Your task to perform on an android device: turn notification dots off Image 0: 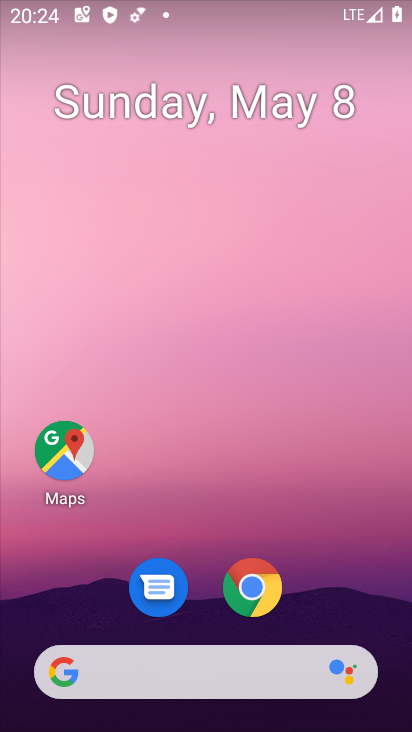
Step 0: drag from (198, 524) to (221, 55)
Your task to perform on an android device: turn notification dots off Image 1: 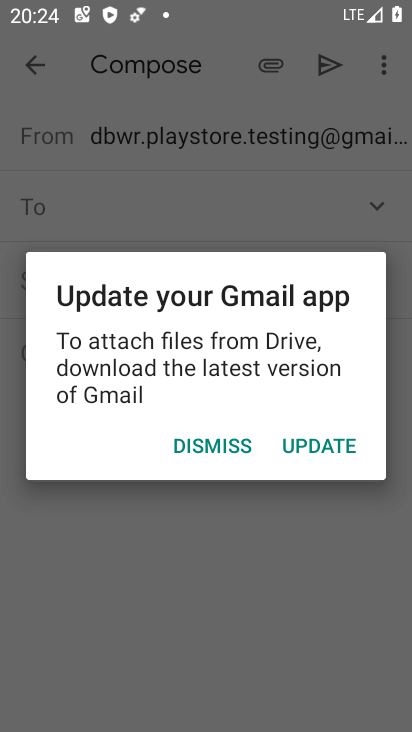
Step 1: press home button
Your task to perform on an android device: turn notification dots off Image 2: 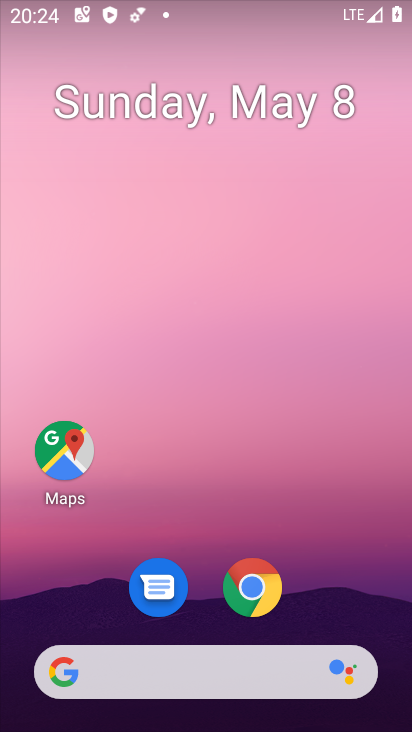
Step 2: drag from (188, 527) to (193, 17)
Your task to perform on an android device: turn notification dots off Image 3: 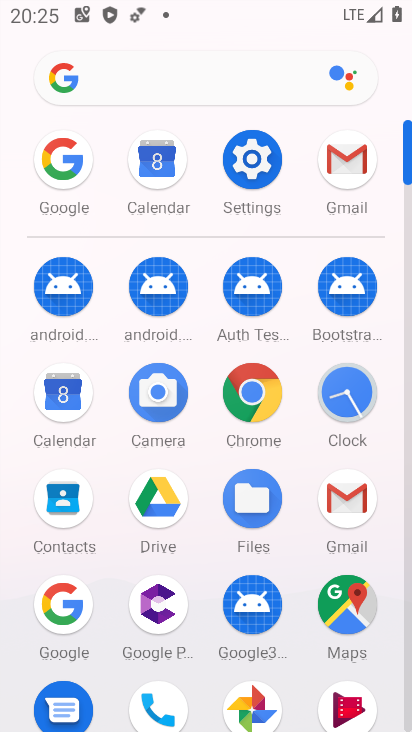
Step 3: click (253, 161)
Your task to perform on an android device: turn notification dots off Image 4: 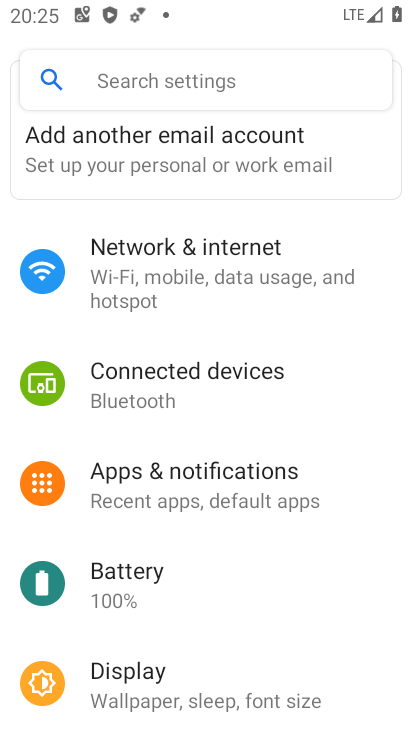
Step 4: click (203, 470)
Your task to perform on an android device: turn notification dots off Image 5: 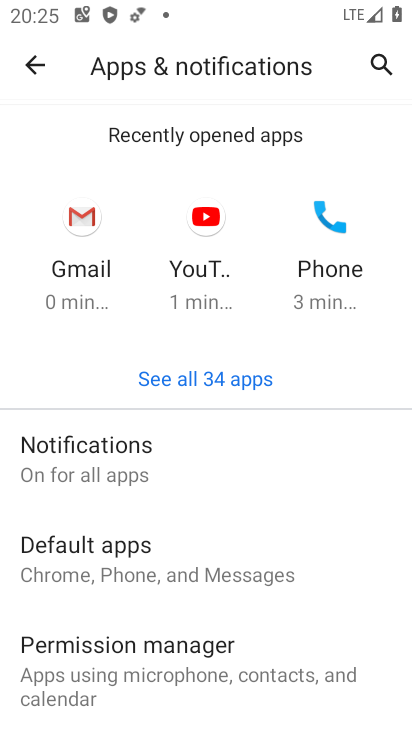
Step 5: drag from (177, 529) to (192, 446)
Your task to perform on an android device: turn notification dots off Image 6: 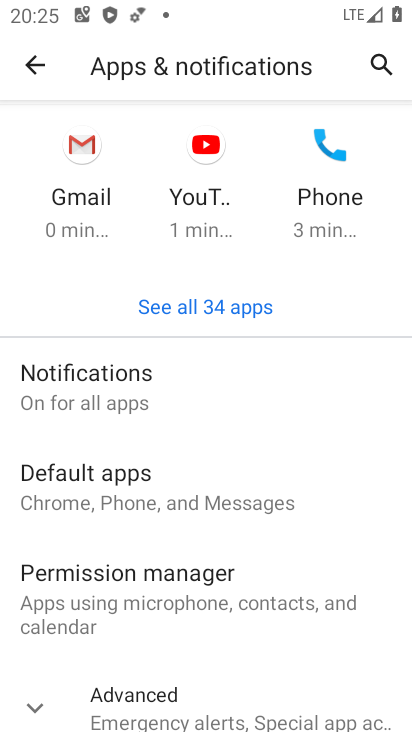
Step 6: click (124, 376)
Your task to perform on an android device: turn notification dots off Image 7: 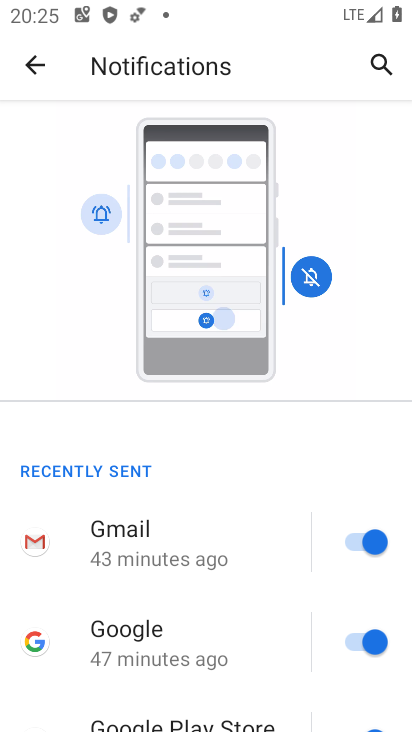
Step 7: drag from (202, 504) to (226, 361)
Your task to perform on an android device: turn notification dots off Image 8: 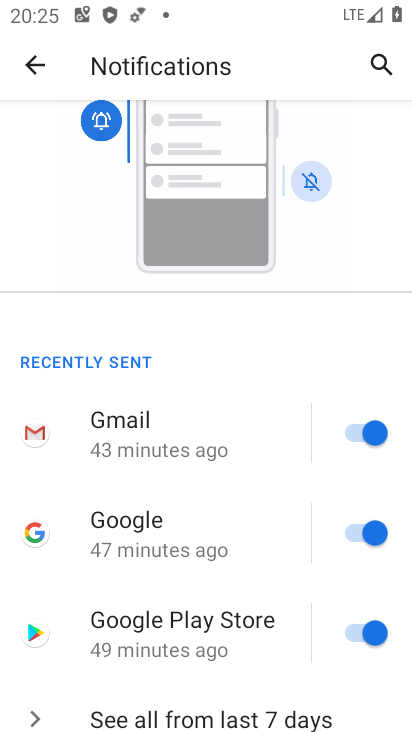
Step 8: drag from (179, 505) to (268, 370)
Your task to perform on an android device: turn notification dots off Image 9: 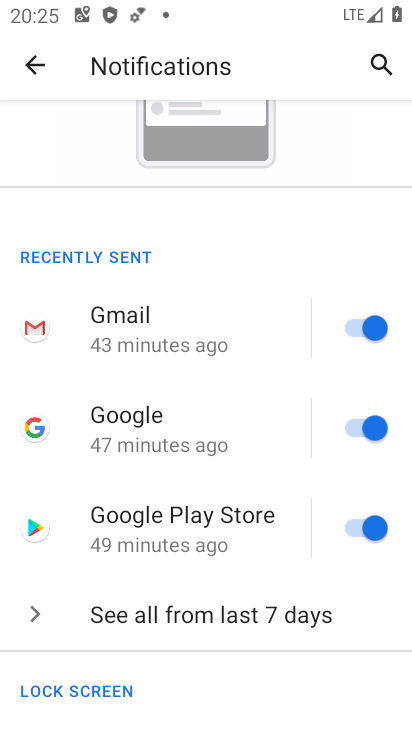
Step 9: drag from (158, 578) to (280, 415)
Your task to perform on an android device: turn notification dots off Image 10: 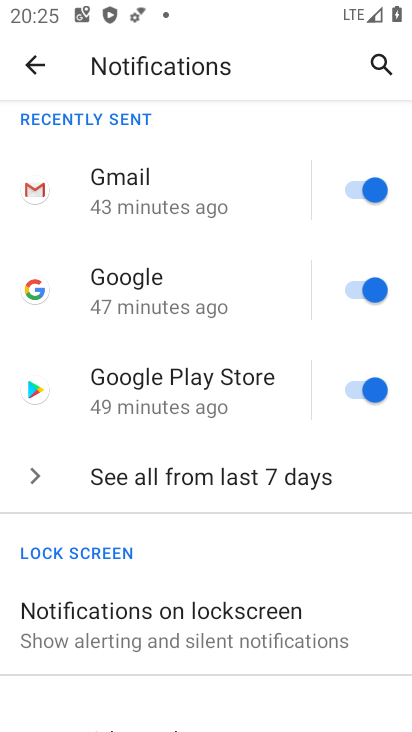
Step 10: drag from (189, 570) to (275, 415)
Your task to perform on an android device: turn notification dots off Image 11: 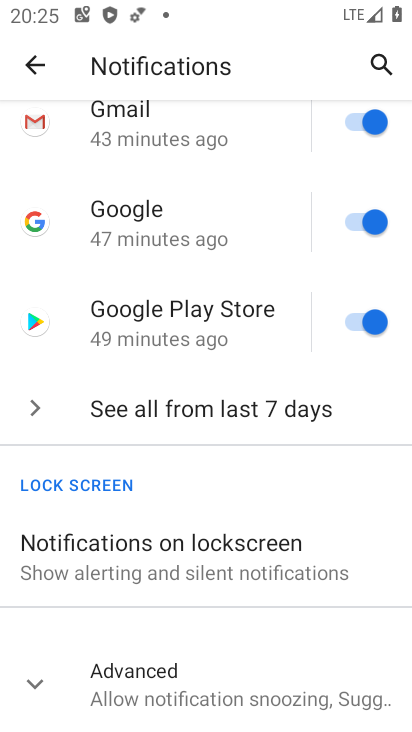
Step 11: click (123, 663)
Your task to perform on an android device: turn notification dots off Image 12: 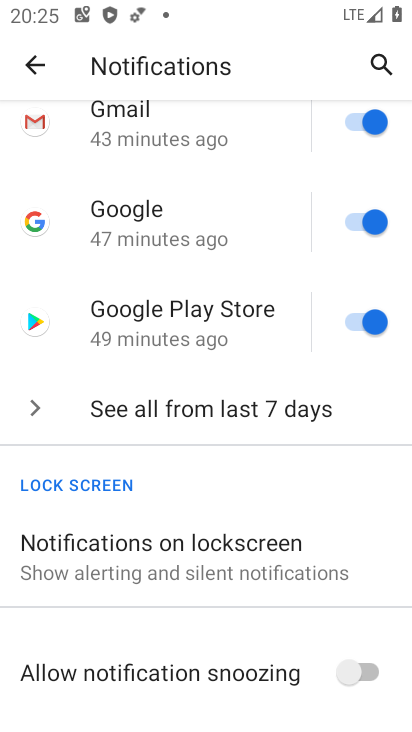
Step 12: drag from (146, 639) to (246, 469)
Your task to perform on an android device: turn notification dots off Image 13: 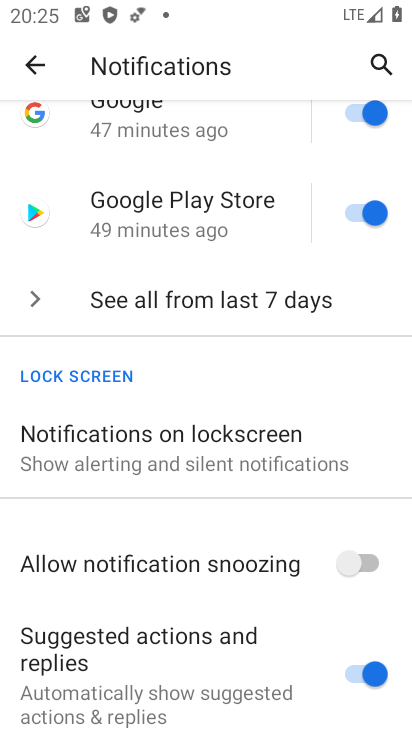
Step 13: drag from (174, 667) to (276, 465)
Your task to perform on an android device: turn notification dots off Image 14: 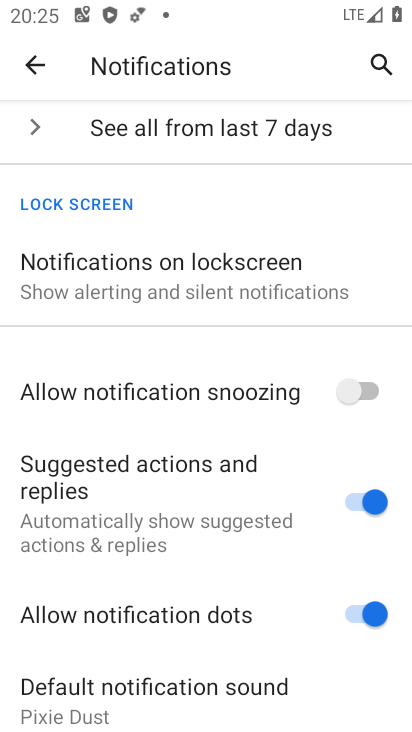
Step 14: click (379, 615)
Your task to perform on an android device: turn notification dots off Image 15: 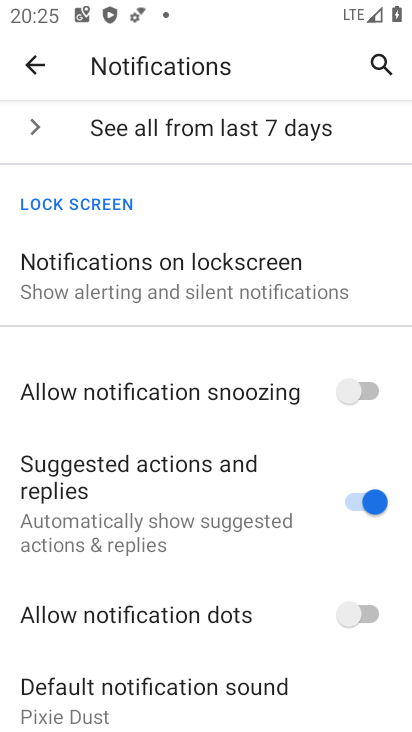
Step 15: task complete